Your task to perform on an android device: Find coffee shops on Maps Image 0: 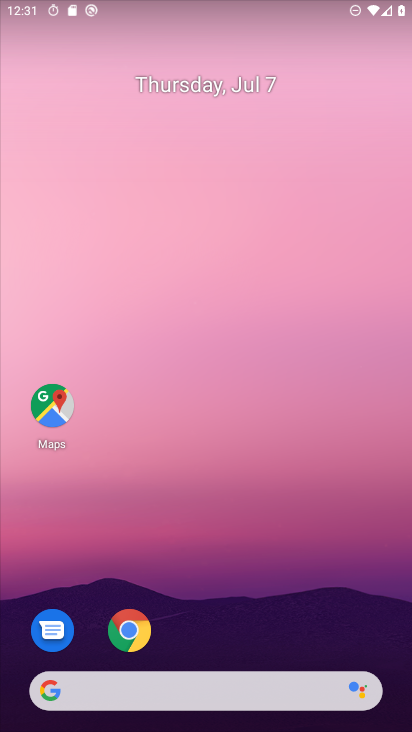
Step 0: click (55, 408)
Your task to perform on an android device: Find coffee shops on Maps Image 1: 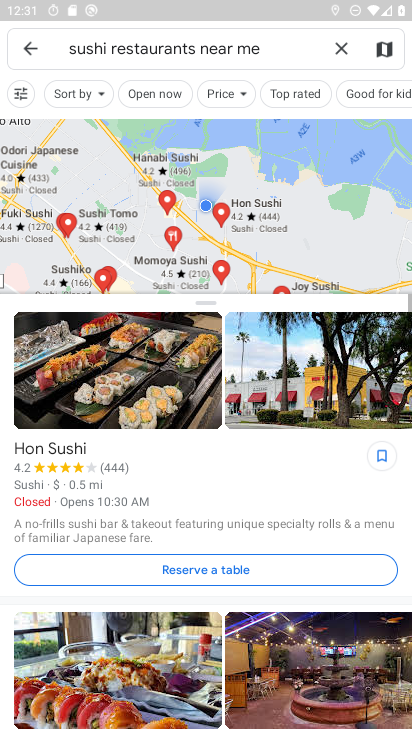
Step 1: click (22, 50)
Your task to perform on an android device: Find coffee shops on Maps Image 2: 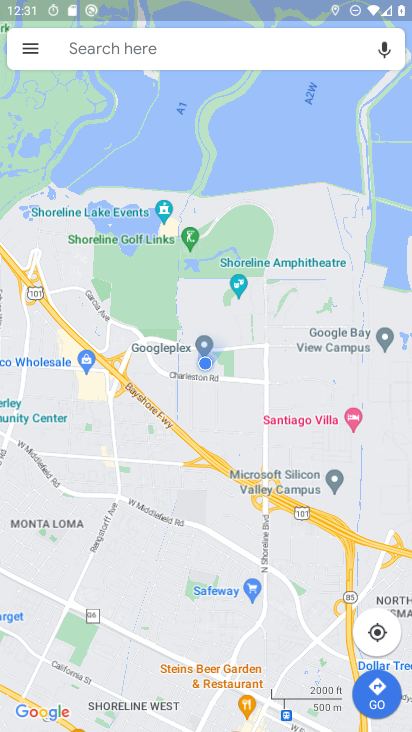
Step 2: click (159, 40)
Your task to perform on an android device: Find coffee shops on Maps Image 3: 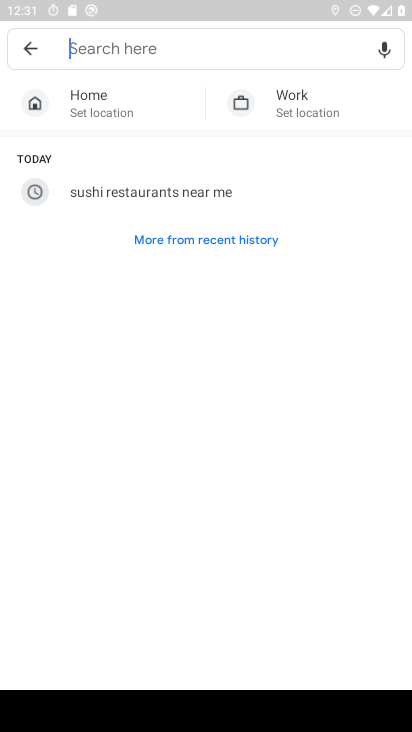
Step 3: type "coffee shops"
Your task to perform on an android device: Find coffee shops on Maps Image 4: 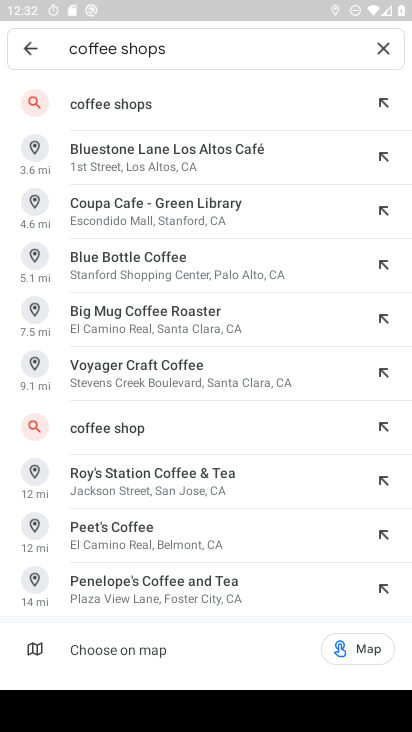
Step 4: click (160, 103)
Your task to perform on an android device: Find coffee shops on Maps Image 5: 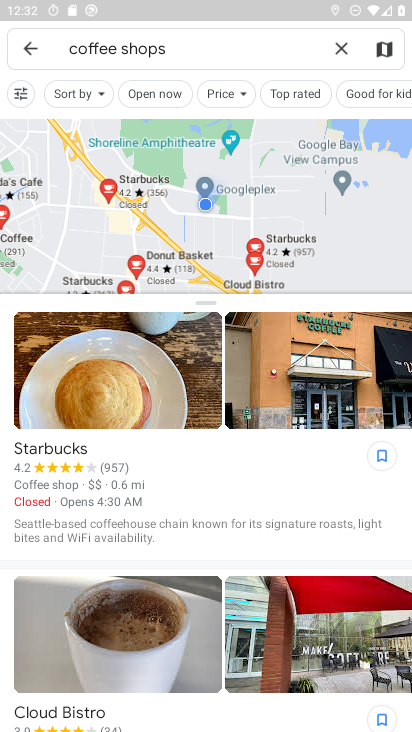
Step 5: task complete